Your task to perform on an android device: manage bookmarks in the chrome app Image 0: 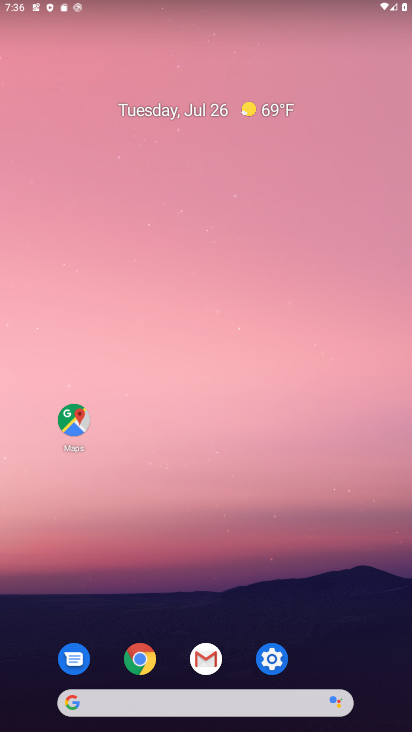
Step 0: click (151, 652)
Your task to perform on an android device: manage bookmarks in the chrome app Image 1: 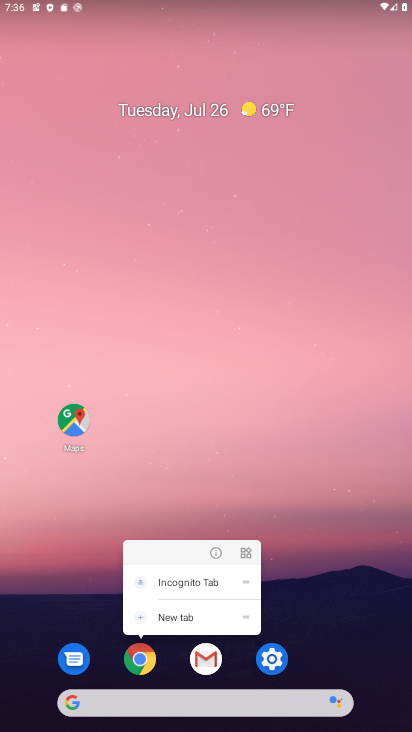
Step 1: click (145, 659)
Your task to perform on an android device: manage bookmarks in the chrome app Image 2: 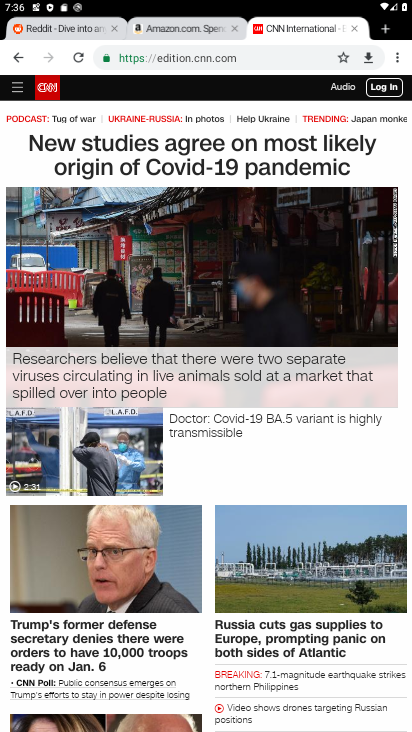
Step 2: click (399, 63)
Your task to perform on an android device: manage bookmarks in the chrome app Image 3: 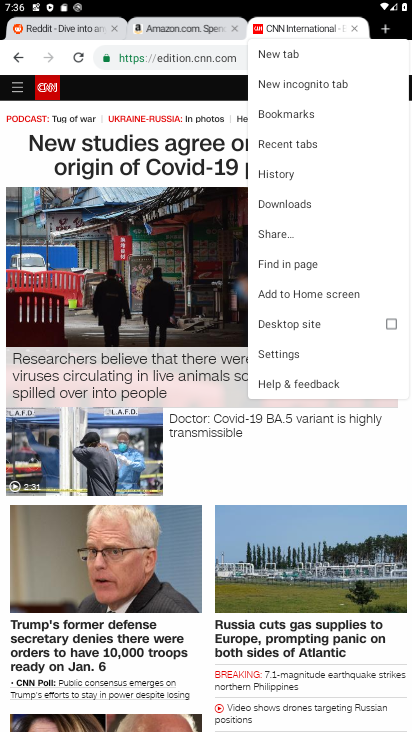
Step 3: click (300, 118)
Your task to perform on an android device: manage bookmarks in the chrome app Image 4: 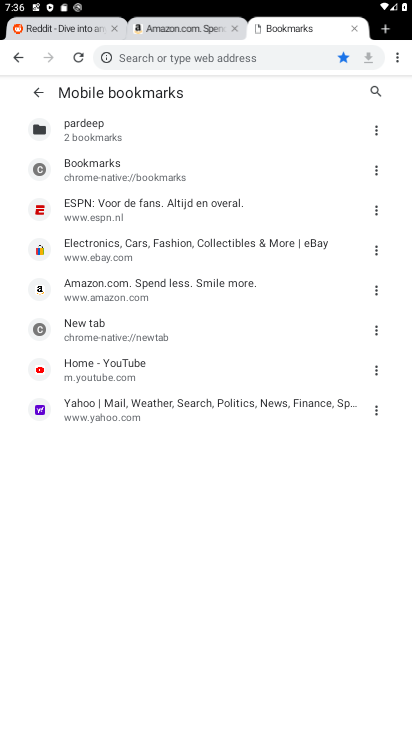
Step 4: task complete